Your task to perform on an android device: Open network settings Image 0: 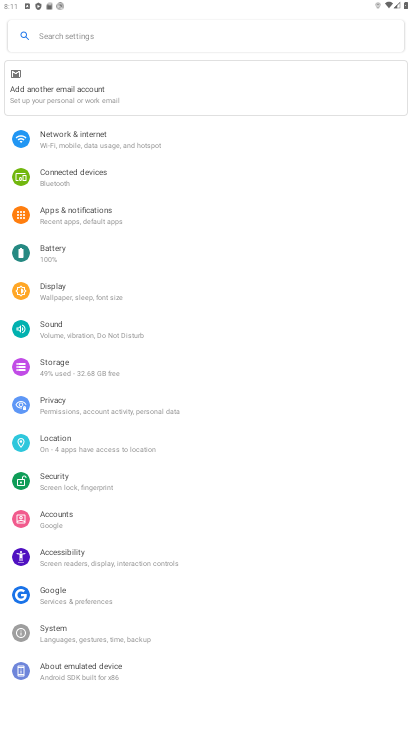
Step 0: press home button
Your task to perform on an android device: Open network settings Image 1: 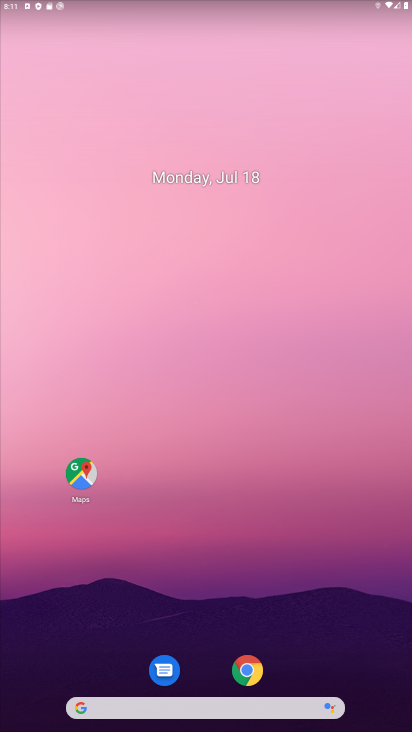
Step 1: drag from (193, 423) to (197, 199)
Your task to perform on an android device: Open network settings Image 2: 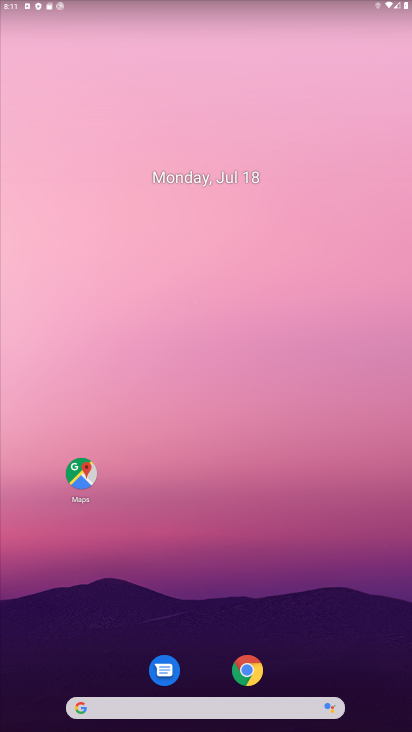
Step 2: click (231, 24)
Your task to perform on an android device: Open network settings Image 3: 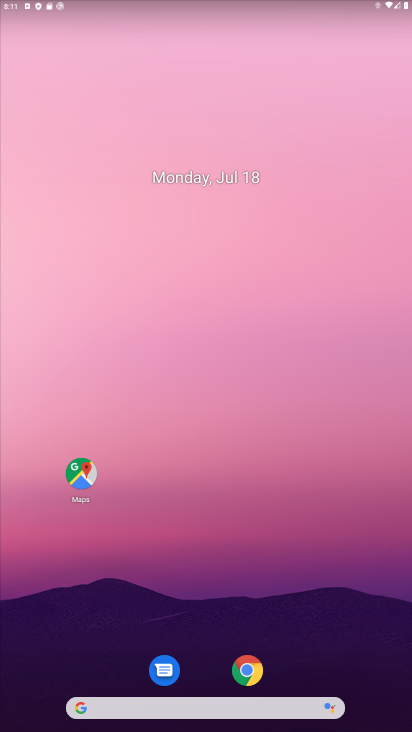
Step 3: drag from (191, 666) to (214, 95)
Your task to perform on an android device: Open network settings Image 4: 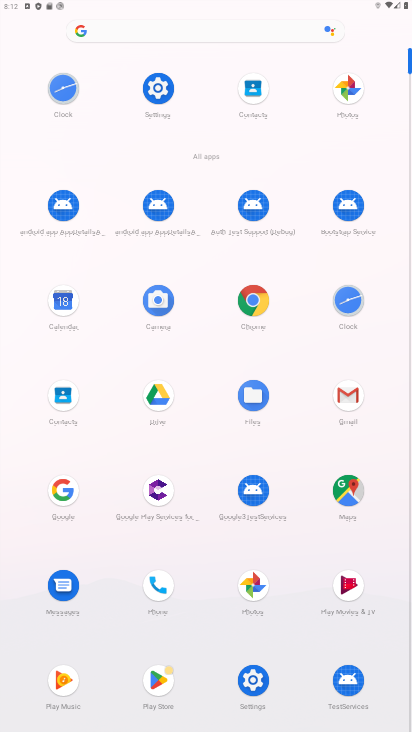
Step 4: click (157, 94)
Your task to perform on an android device: Open network settings Image 5: 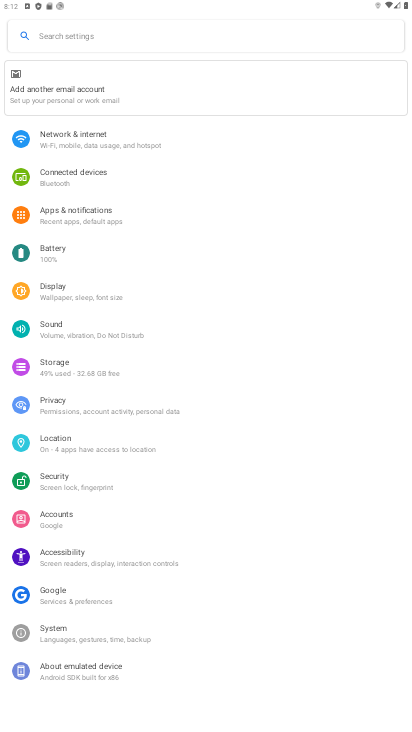
Step 5: click (156, 85)
Your task to perform on an android device: Open network settings Image 6: 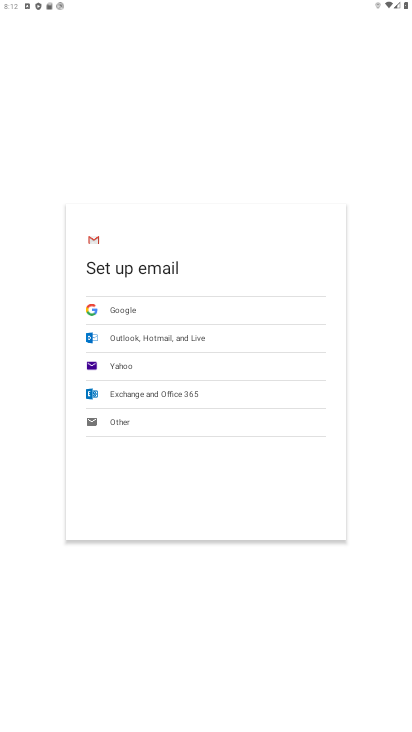
Step 6: press back button
Your task to perform on an android device: Open network settings Image 7: 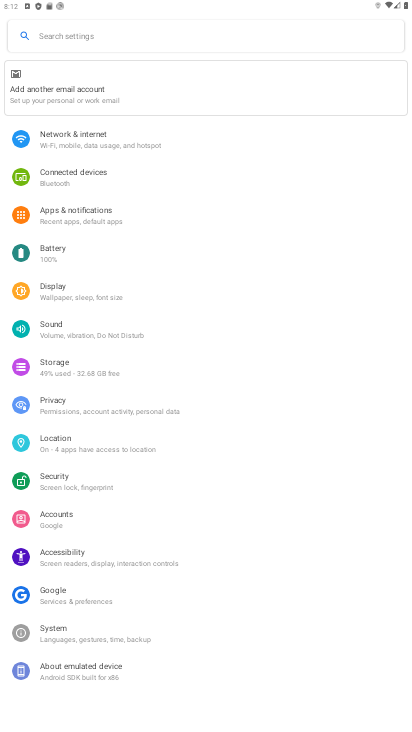
Step 7: click (103, 138)
Your task to perform on an android device: Open network settings Image 8: 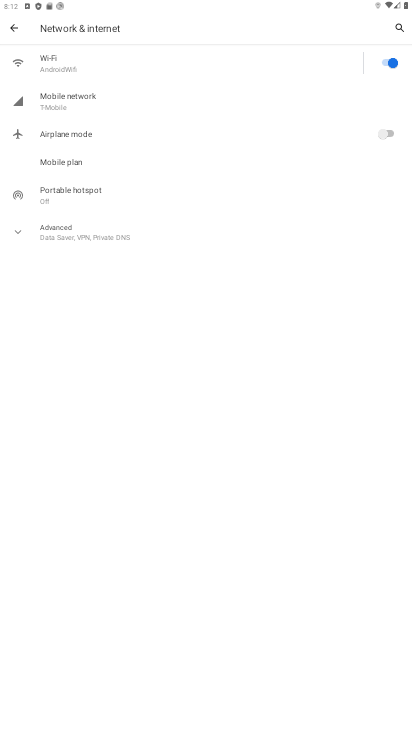
Step 8: task complete